Your task to perform on an android device: Open battery settings Image 0: 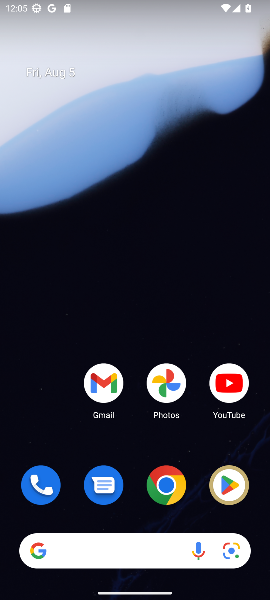
Step 0: drag from (66, 428) to (96, 48)
Your task to perform on an android device: Open battery settings Image 1: 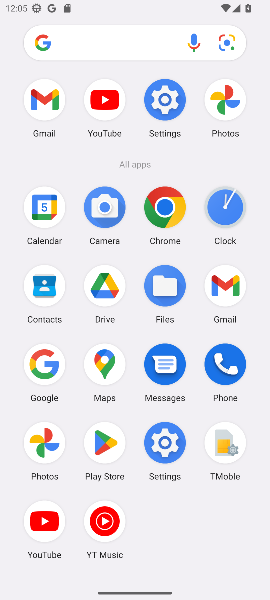
Step 1: click (158, 94)
Your task to perform on an android device: Open battery settings Image 2: 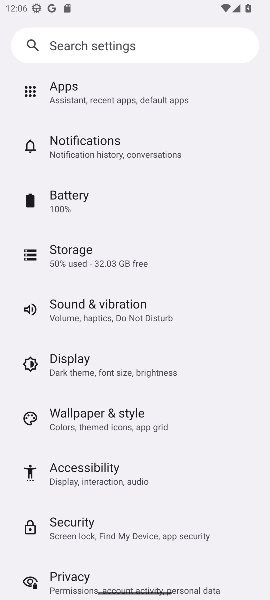
Step 2: click (73, 193)
Your task to perform on an android device: Open battery settings Image 3: 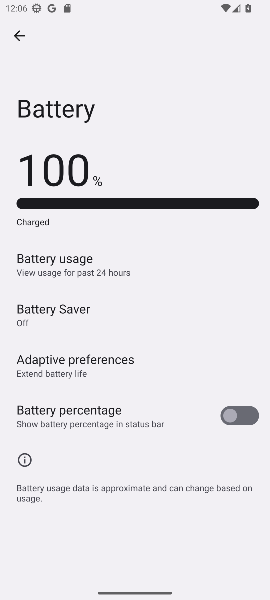
Step 3: task complete